Your task to perform on an android device: Go to battery settings Image 0: 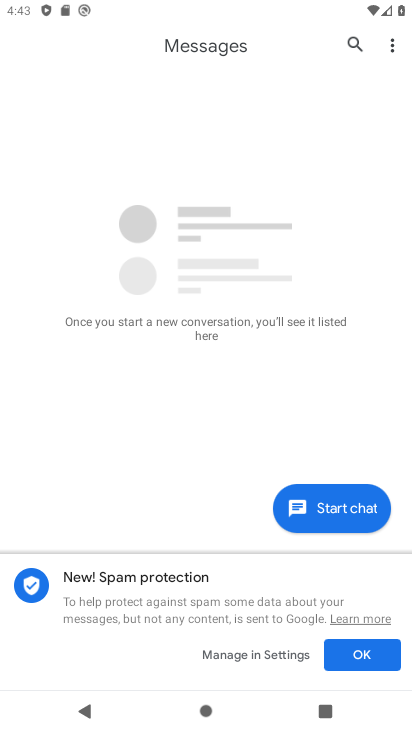
Step 0: press home button
Your task to perform on an android device: Go to battery settings Image 1: 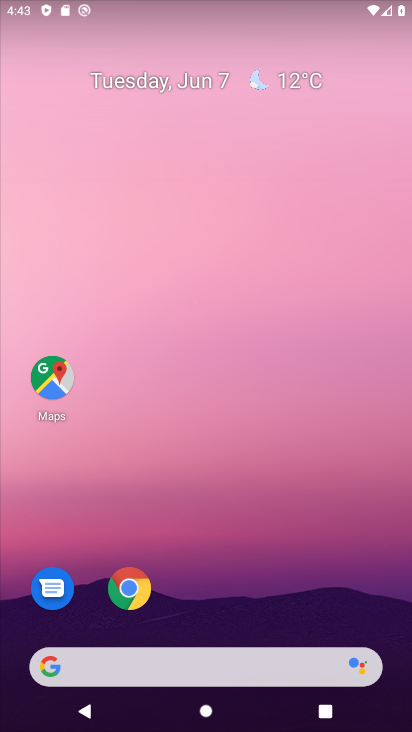
Step 1: drag from (199, 600) to (184, 128)
Your task to perform on an android device: Go to battery settings Image 2: 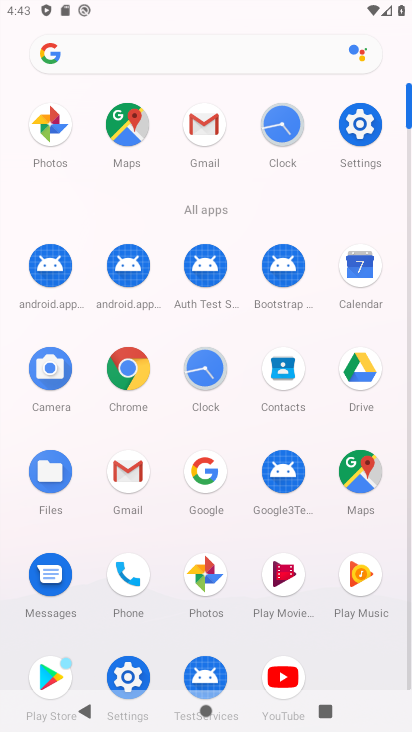
Step 2: click (363, 143)
Your task to perform on an android device: Go to battery settings Image 3: 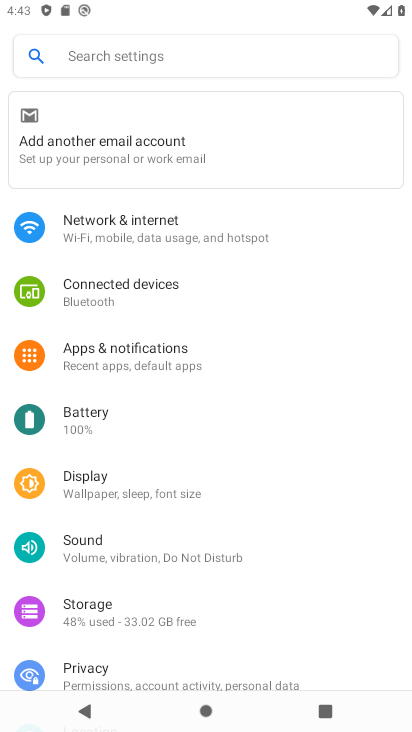
Step 3: click (93, 426)
Your task to perform on an android device: Go to battery settings Image 4: 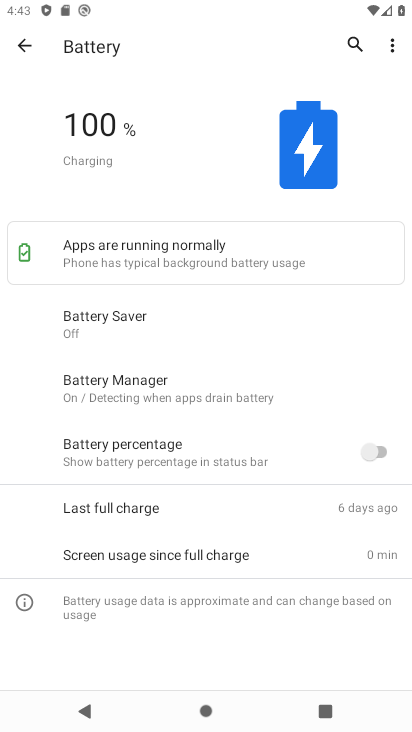
Step 4: task complete